Your task to perform on an android device: open app "NewsBreak: Local News & Alerts" (install if not already installed) and go to login screen Image 0: 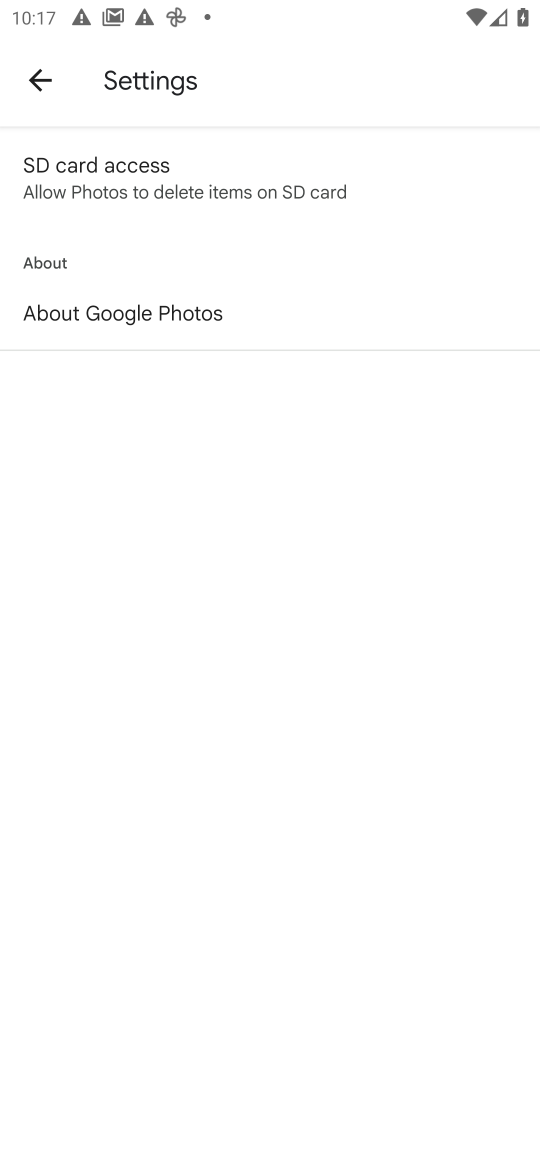
Step 0: press home button
Your task to perform on an android device: open app "NewsBreak: Local News & Alerts" (install if not already installed) and go to login screen Image 1: 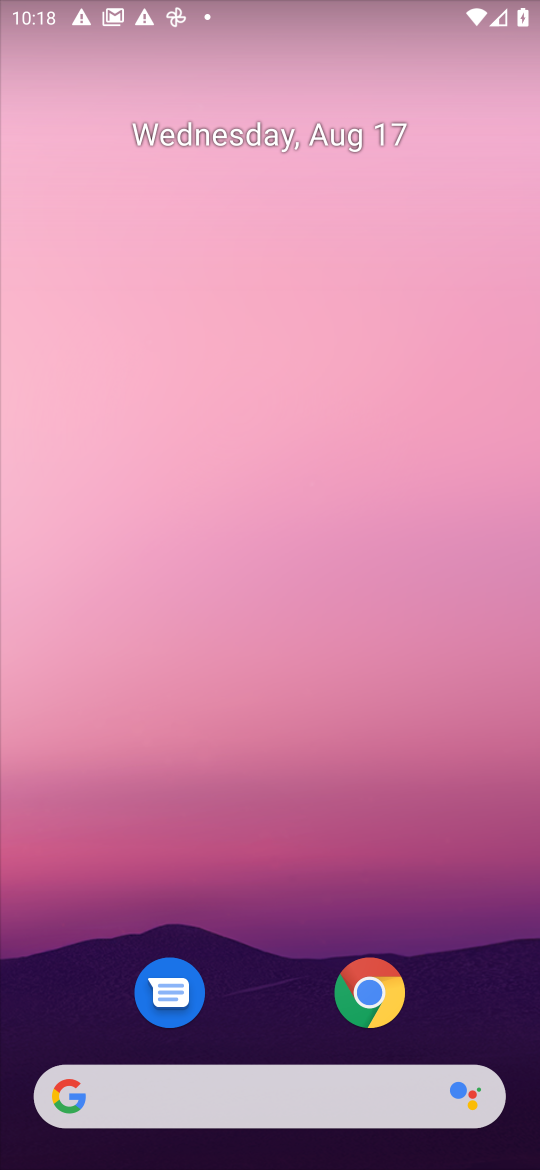
Step 1: drag from (492, 974) to (79, 89)
Your task to perform on an android device: open app "NewsBreak: Local News & Alerts" (install if not already installed) and go to login screen Image 2: 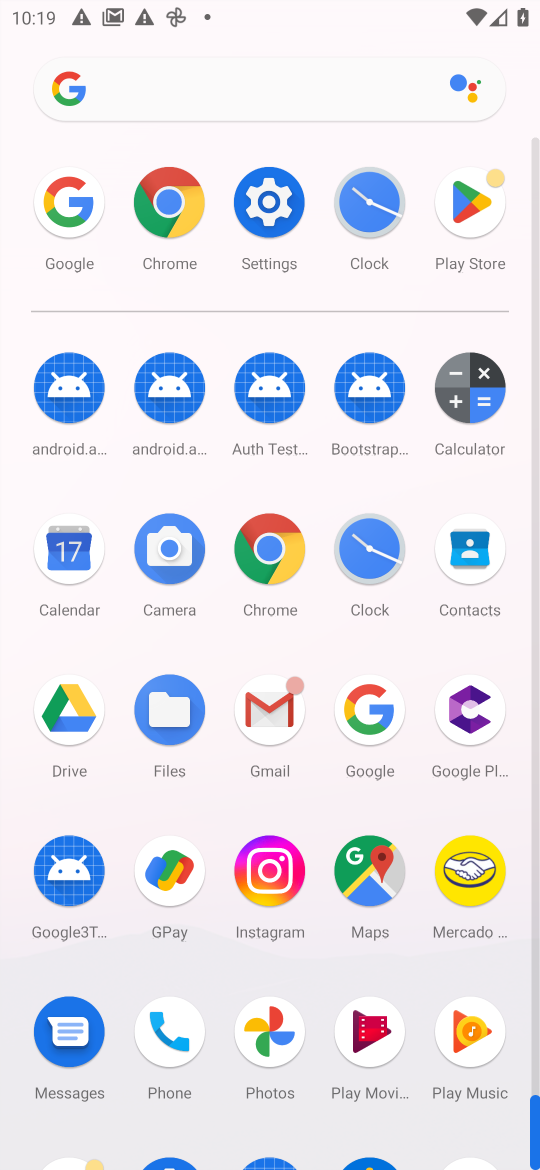
Step 2: click (472, 215)
Your task to perform on an android device: open app "NewsBreak: Local News & Alerts" (install if not already installed) and go to login screen Image 3: 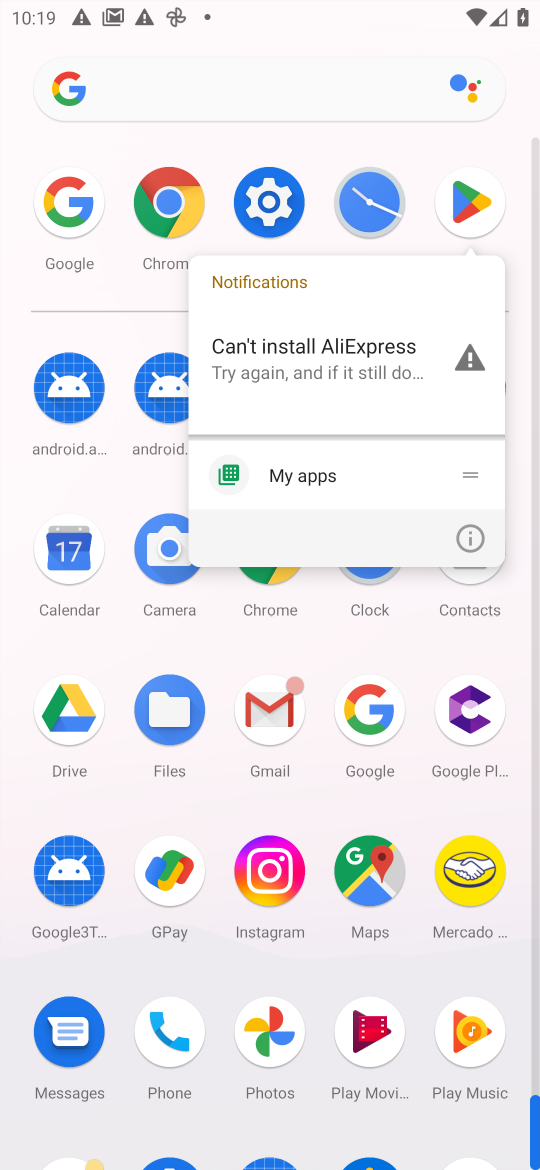
Step 3: click (473, 219)
Your task to perform on an android device: open app "NewsBreak: Local News & Alerts" (install if not already installed) and go to login screen Image 4: 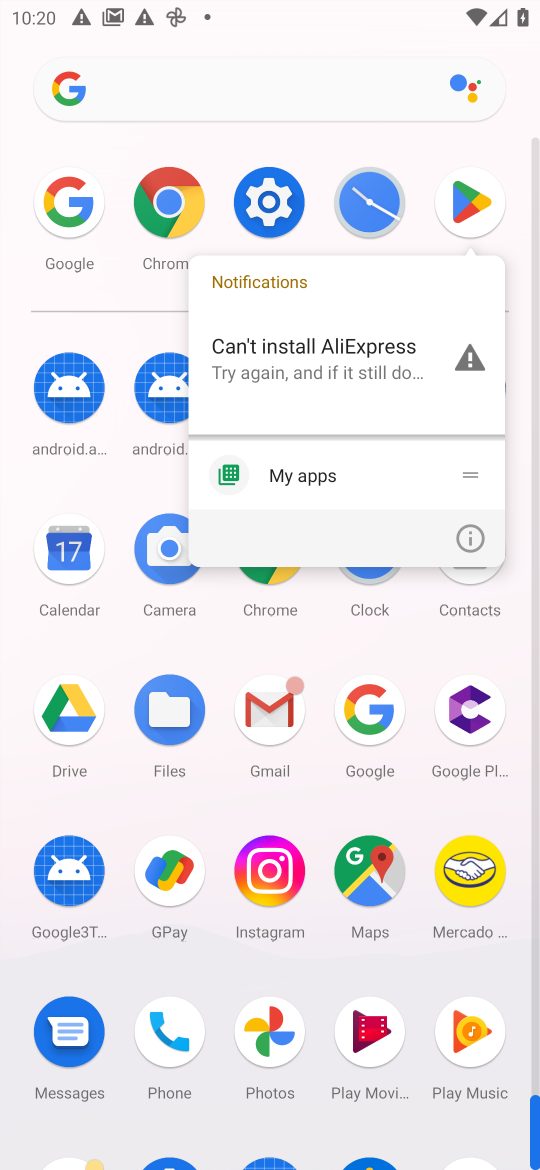
Step 4: click (464, 204)
Your task to perform on an android device: open app "NewsBreak: Local News & Alerts" (install if not already installed) and go to login screen Image 5: 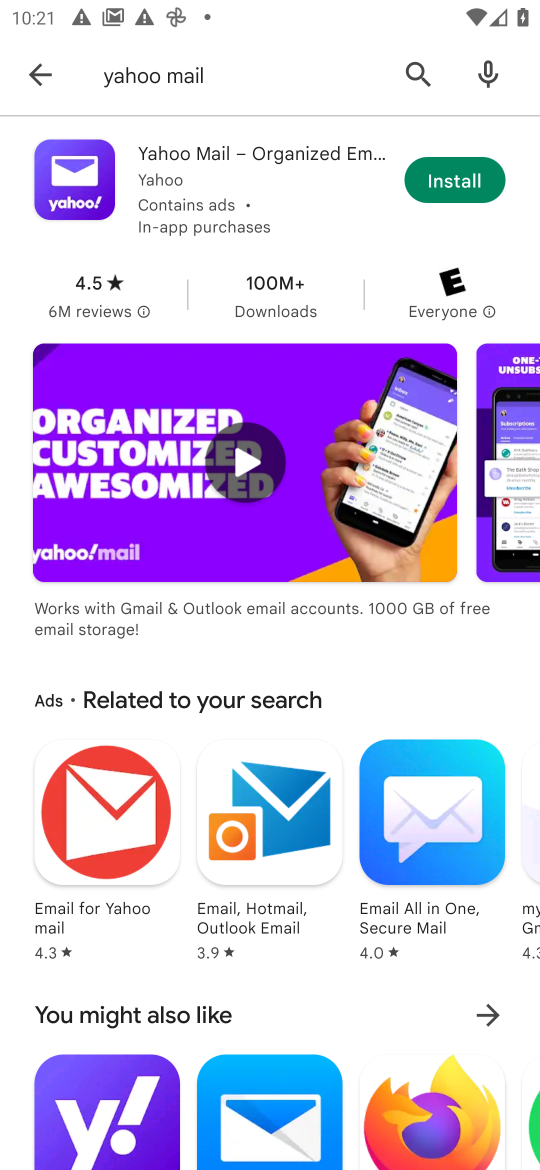
Step 5: press back button
Your task to perform on an android device: open app "NewsBreak: Local News & Alerts" (install if not already installed) and go to login screen Image 6: 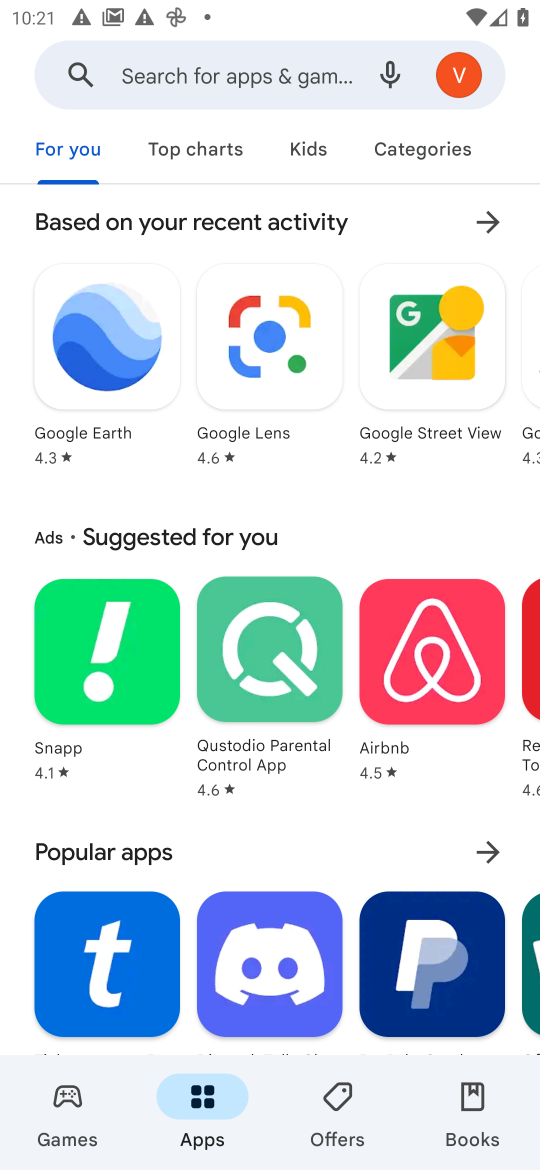
Step 6: click (153, 71)
Your task to perform on an android device: open app "NewsBreak: Local News & Alerts" (install if not already installed) and go to login screen Image 7: 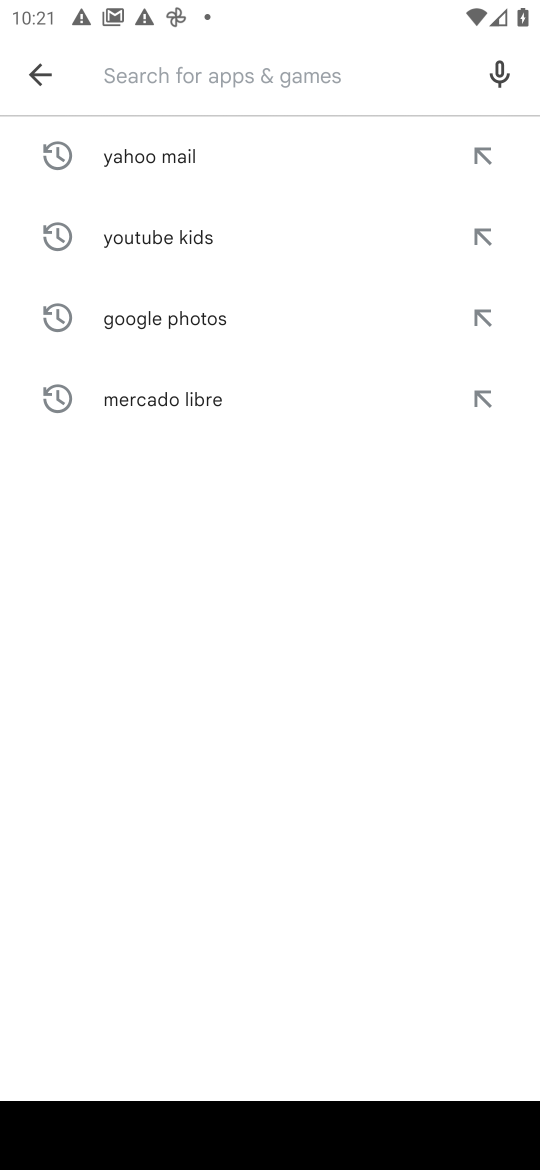
Step 7: type "NewsBreak: Local News & Alerts"
Your task to perform on an android device: open app "NewsBreak: Local News & Alerts" (install if not already installed) and go to login screen Image 8: 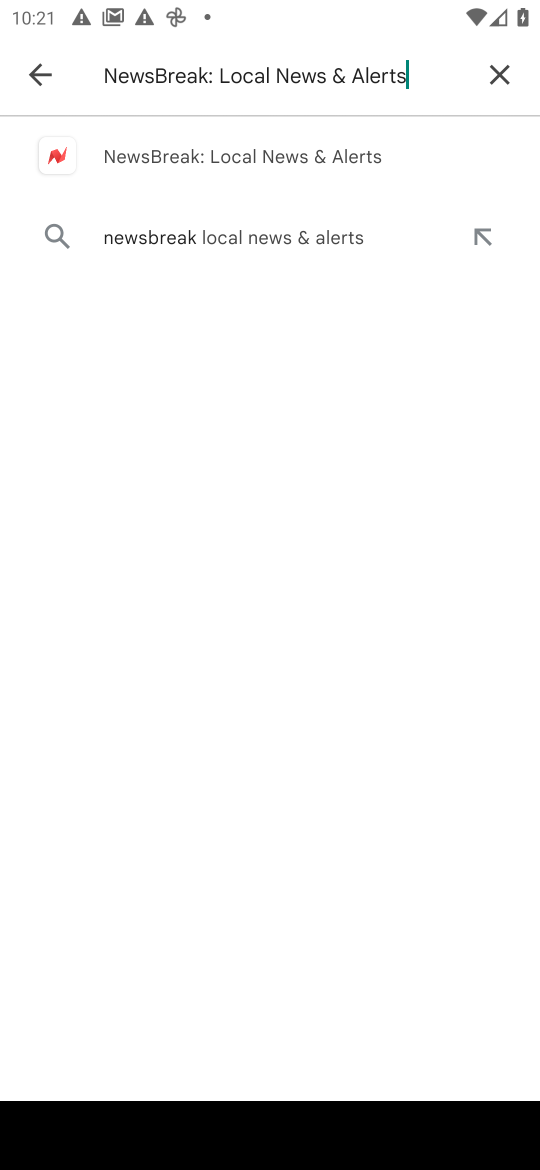
Step 8: click (215, 161)
Your task to perform on an android device: open app "NewsBreak: Local News & Alerts" (install if not already installed) and go to login screen Image 9: 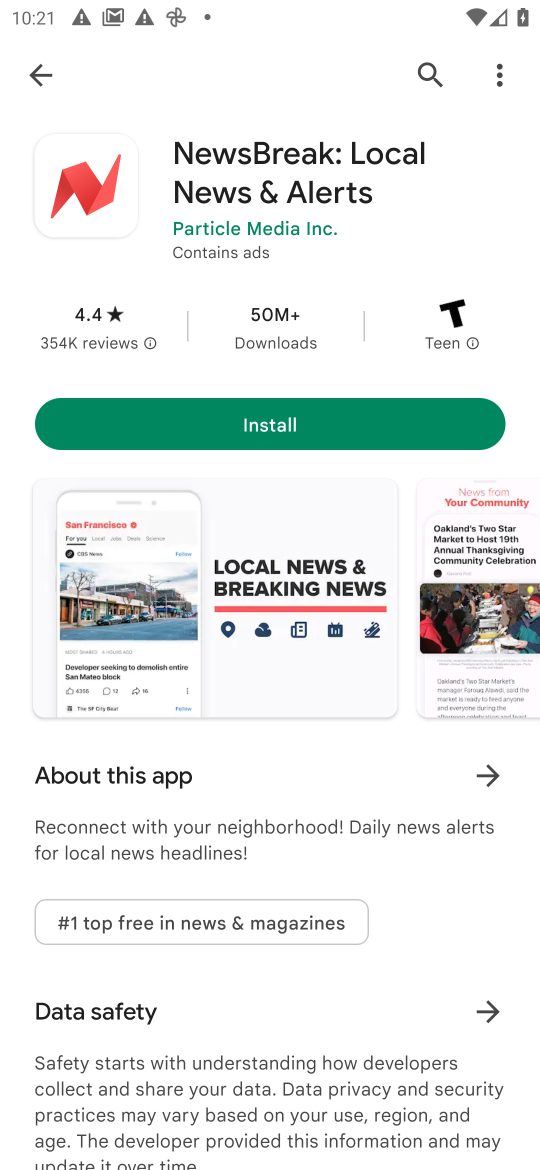
Step 9: task complete